Your task to perform on an android device: Go to Reddit.com Image 0: 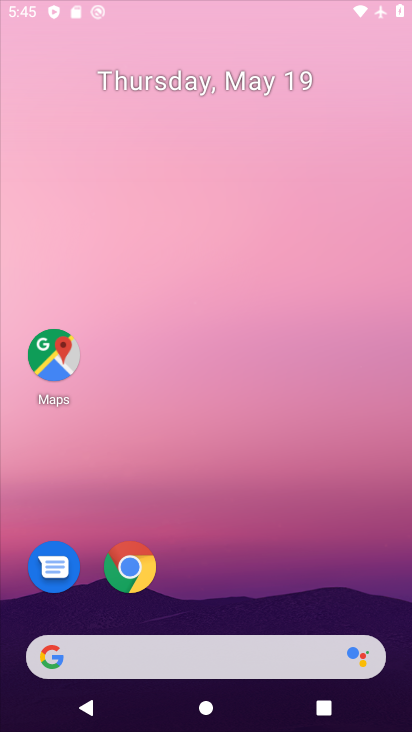
Step 0: click (224, 179)
Your task to perform on an android device: Go to Reddit.com Image 1: 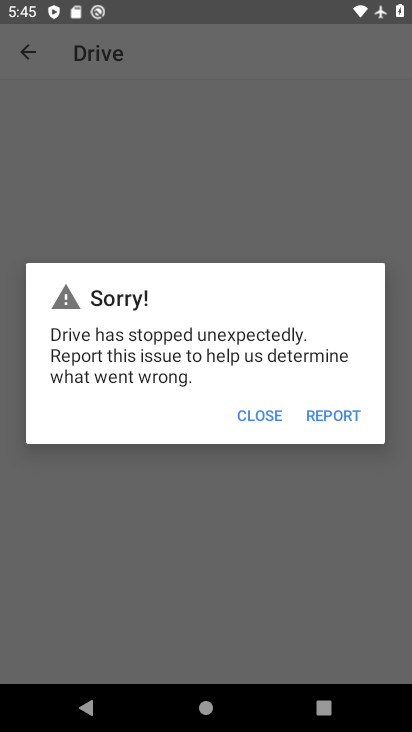
Step 1: click (284, 413)
Your task to perform on an android device: Go to Reddit.com Image 2: 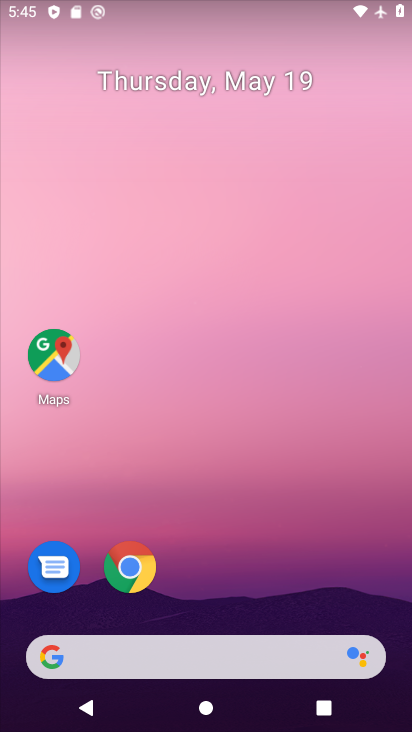
Step 2: drag from (241, 712) to (157, 142)
Your task to perform on an android device: Go to Reddit.com Image 3: 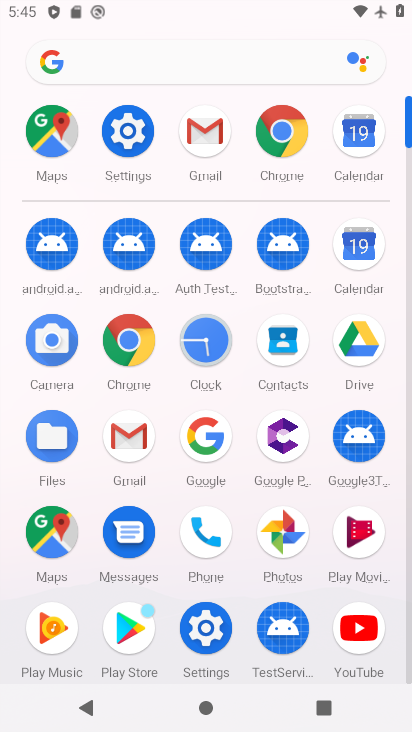
Step 3: click (281, 133)
Your task to perform on an android device: Go to Reddit.com Image 4: 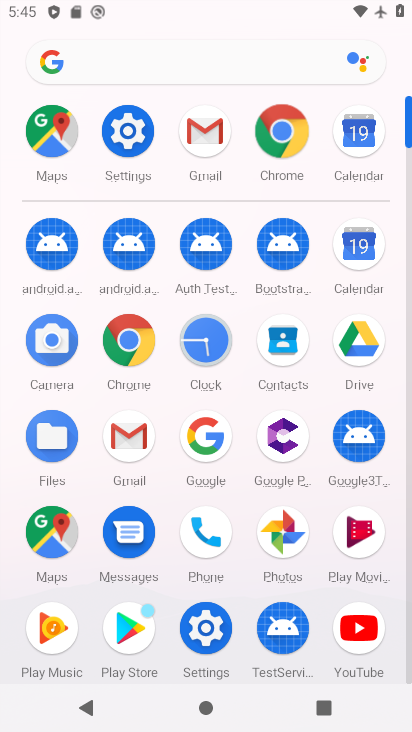
Step 4: click (281, 134)
Your task to perform on an android device: Go to Reddit.com Image 5: 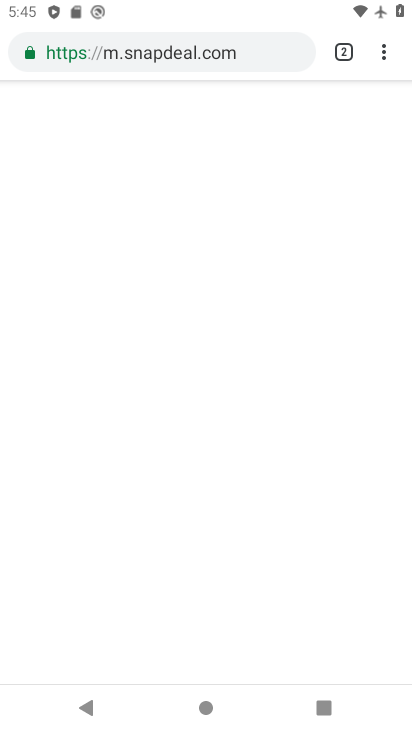
Step 5: click (385, 54)
Your task to perform on an android device: Go to Reddit.com Image 6: 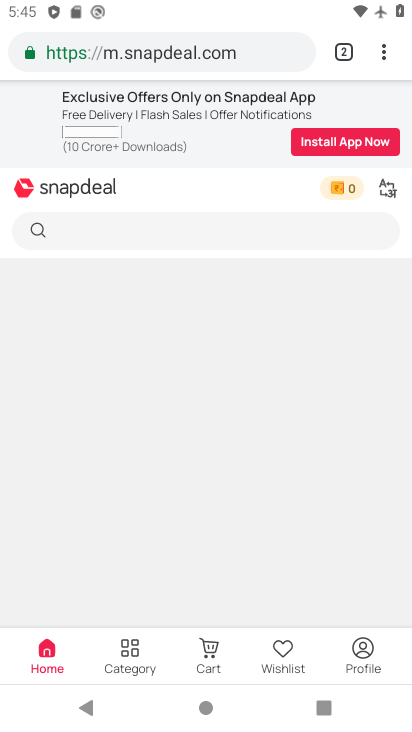
Step 6: drag from (386, 54) to (207, 105)
Your task to perform on an android device: Go to Reddit.com Image 7: 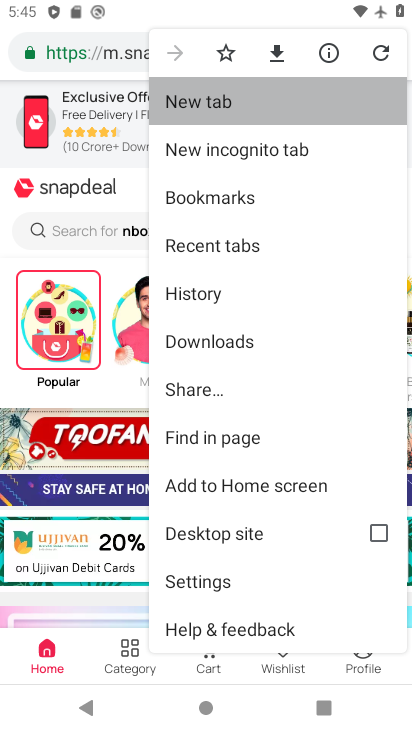
Step 7: click (207, 105)
Your task to perform on an android device: Go to Reddit.com Image 8: 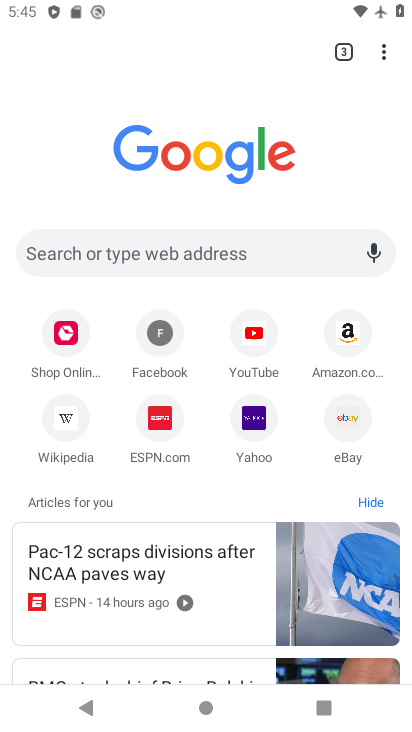
Step 8: click (77, 243)
Your task to perform on an android device: Go to Reddit.com Image 9: 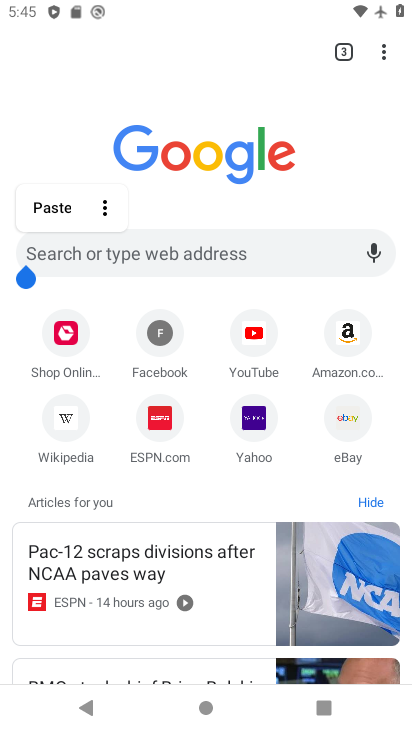
Step 9: click (69, 253)
Your task to perform on an android device: Go to Reddit.com Image 10: 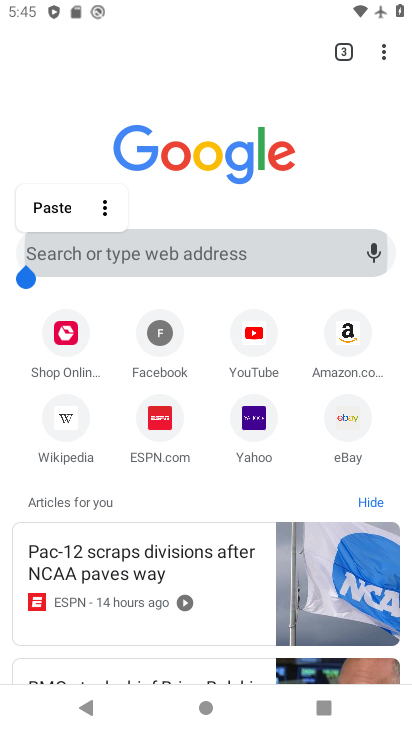
Step 10: click (69, 253)
Your task to perform on an android device: Go to Reddit.com Image 11: 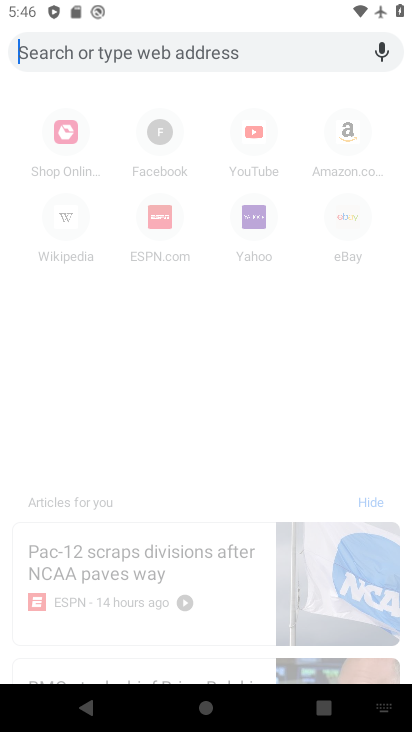
Step 11: type "reddit.com"
Your task to perform on an android device: Go to Reddit.com Image 12: 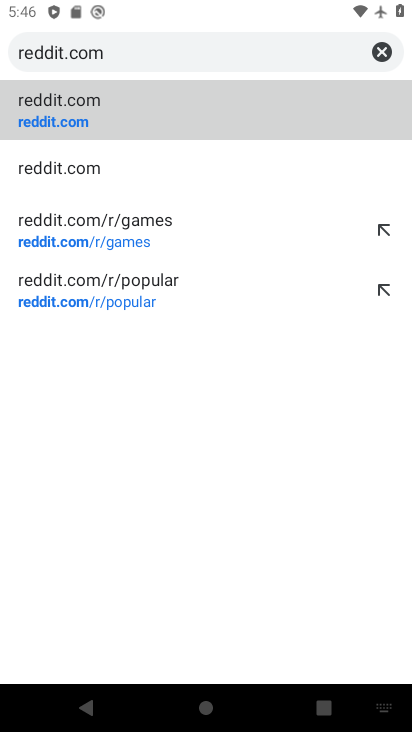
Step 12: click (38, 137)
Your task to perform on an android device: Go to Reddit.com Image 13: 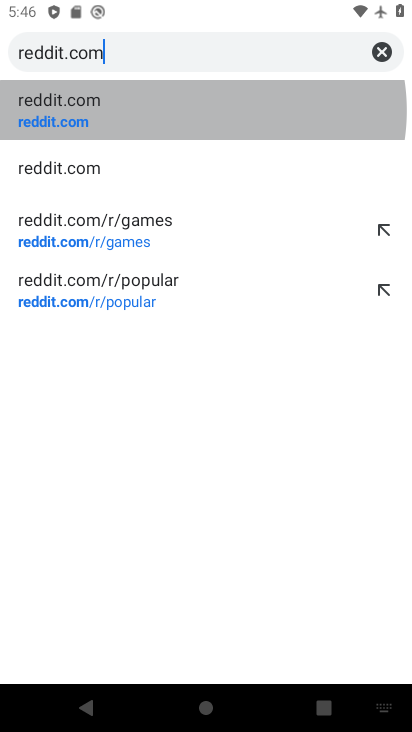
Step 13: click (38, 137)
Your task to perform on an android device: Go to Reddit.com Image 14: 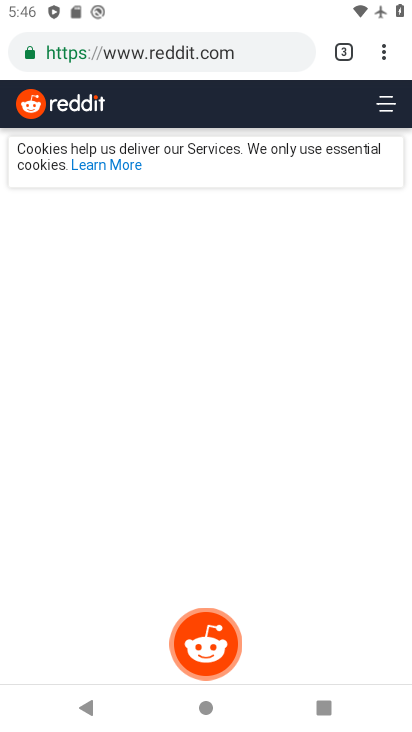
Step 14: task complete